Your task to perform on an android device: Go to Yahoo.com Image 0: 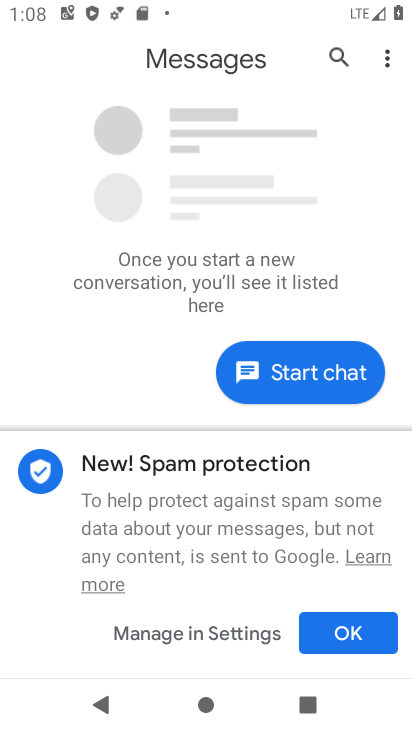
Step 0: press home button
Your task to perform on an android device: Go to Yahoo.com Image 1: 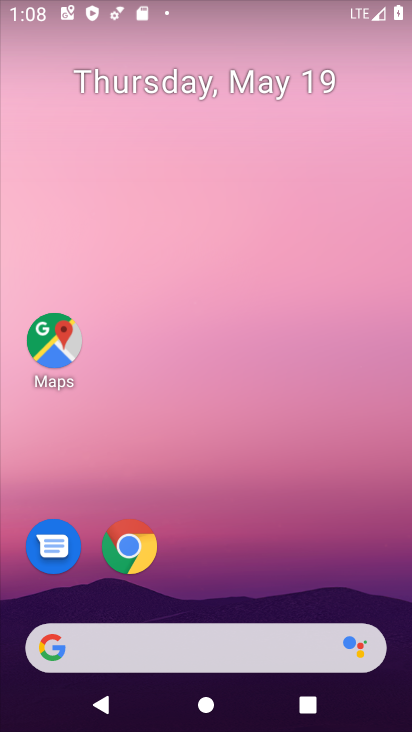
Step 1: click (126, 535)
Your task to perform on an android device: Go to Yahoo.com Image 2: 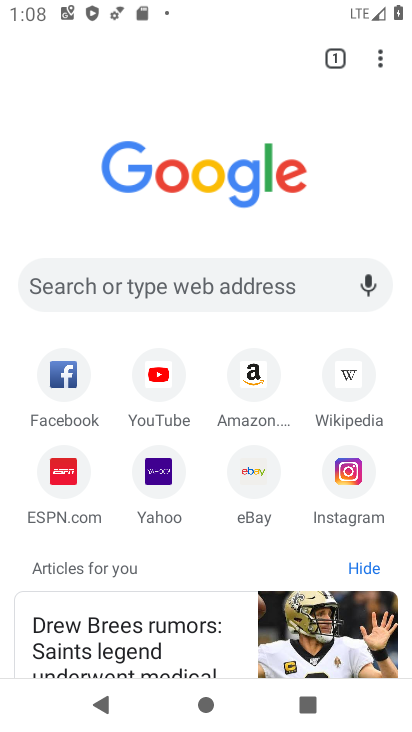
Step 2: click (151, 471)
Your task to perform on an android device: Go to Yahoo.com Image 3: 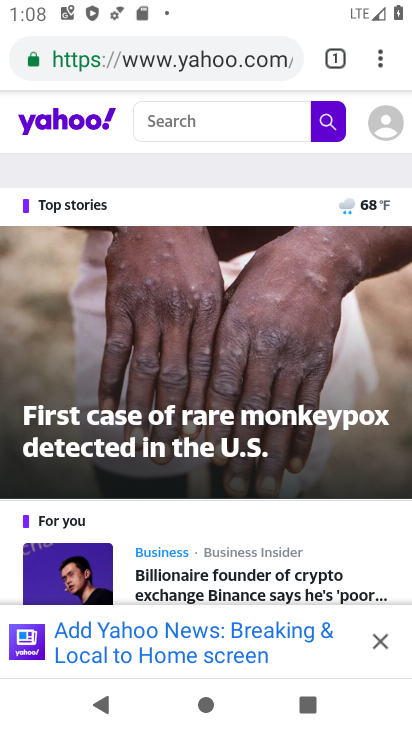
Step 3: task complete